Your task to perform on an android device: toggle pop-ups in chrome Image 0: 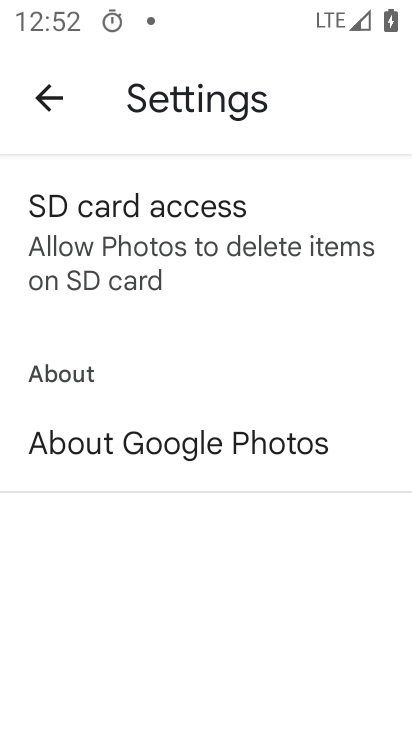
Step 0: drag from (337, 618) to (356, 489)
Your task to perform on an android device: toggle pop-ups in chrome Image 1: 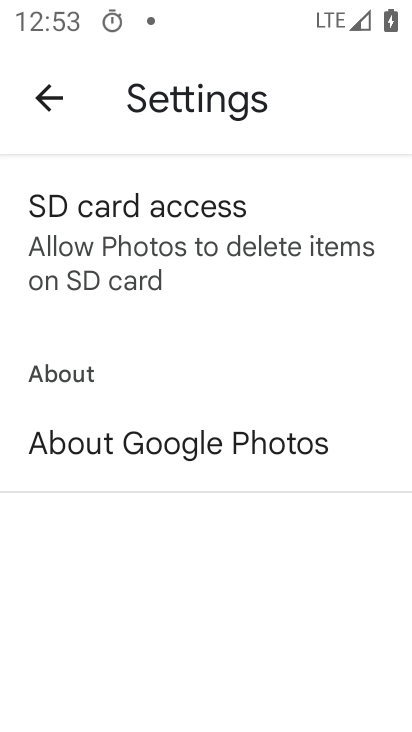
Step 1: click (46, 94)
Your task to perform on an android device: toggle pop-ups in chrome Image 2: 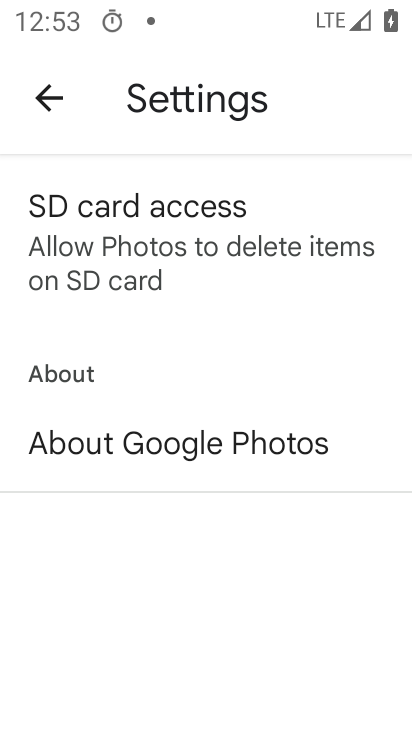
Step 2: press home button
Your task to perform on an android device: toggle pop-ups in chrome Image 3: 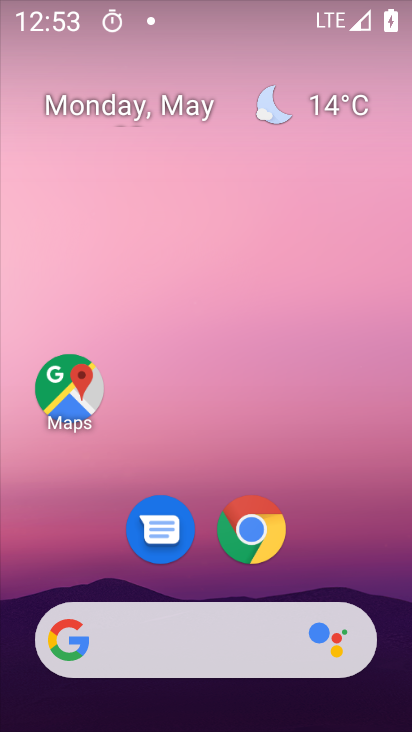
Step 3: click (270, 551)
Your task to perform on an android device: toggle pop-ups in chrome Image 4: 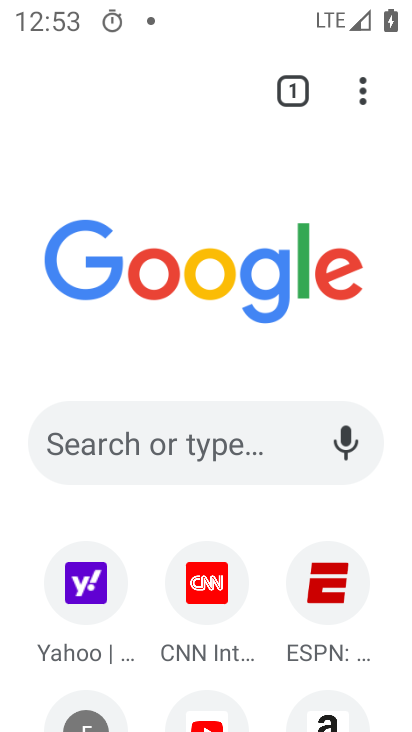
Step 4: click (361, 103)
Your task to perform on an android device: toggle pop-ups in chrome Image 5: 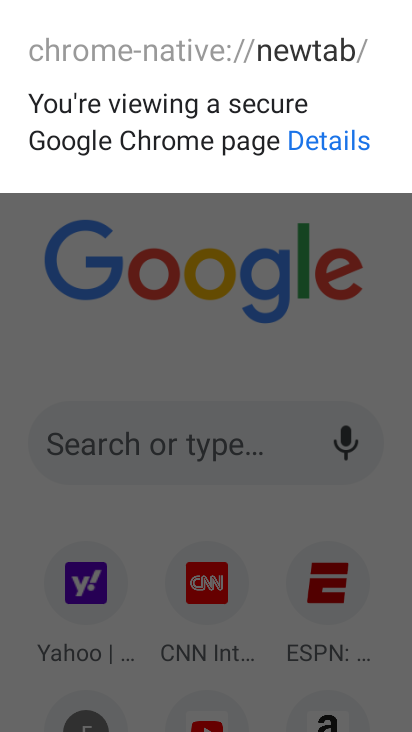
Step 5: click (357, 353)
Your task to perform on an android device: toggle pop-ups in chrome Image 6: 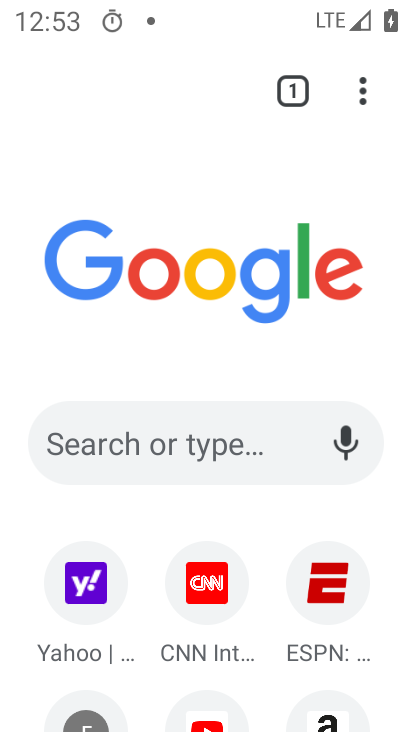
Step 6: click (364, 100)
Your task to perform on an android device: toggle pop-ups in chrome Image 7: 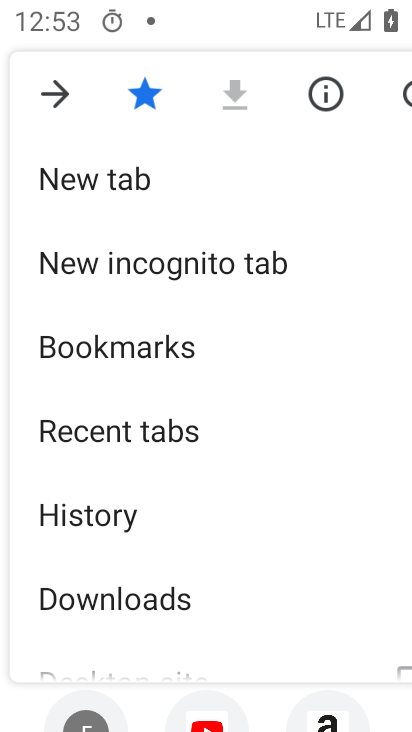
Step 7: drag from (321, 502) to (321, 388)
Your task to perform on an android device: toggle pop-ups in chrome Image 8: 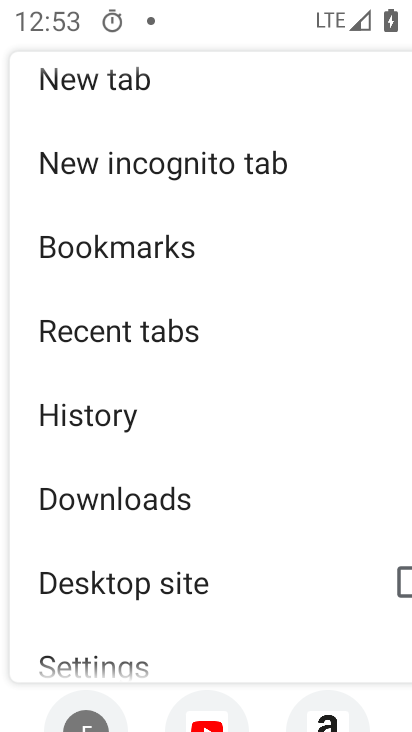
Step 8: drag from (296, 584) to (292, 443)
Your task to perform on an android device: toggle pop-ups in chrome Image 9: 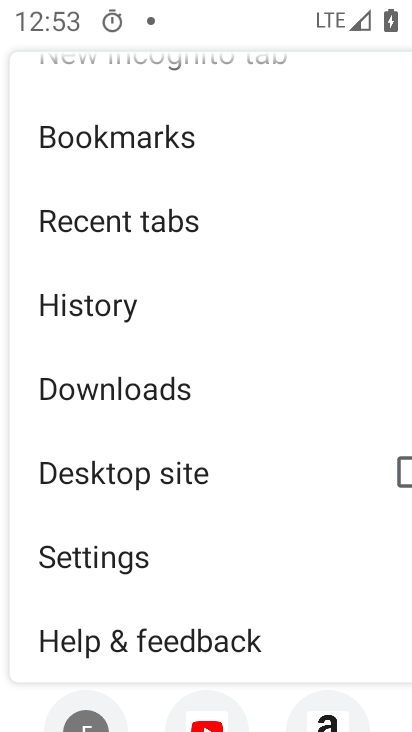
Step 9: drag from (290, 606) to (292, 474)
Your task to perform on an android device: toggle pop-ups in chrome Image 10: 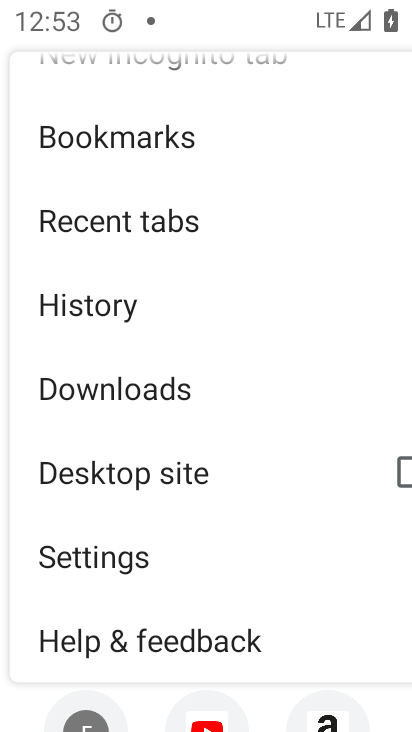
Step 10: click (165, 577)
Your task to perform on an android device: toggle pop-ups in chrome Image 11: 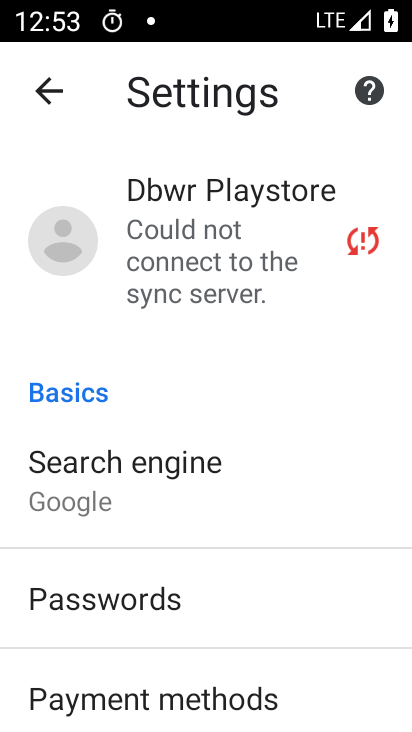
Step 11: drag from (309, 543) to (312, 479)
Your task to perform on an android device: toggle pop-ups in chrome Image 12: 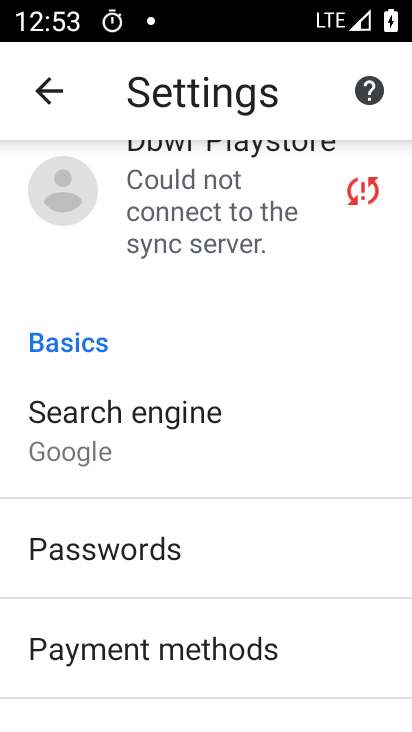
Step 12: drag from (317, 607) to (320, 537)
Your task to perform on an android device: toggle pop-ups in chrome Image 13: 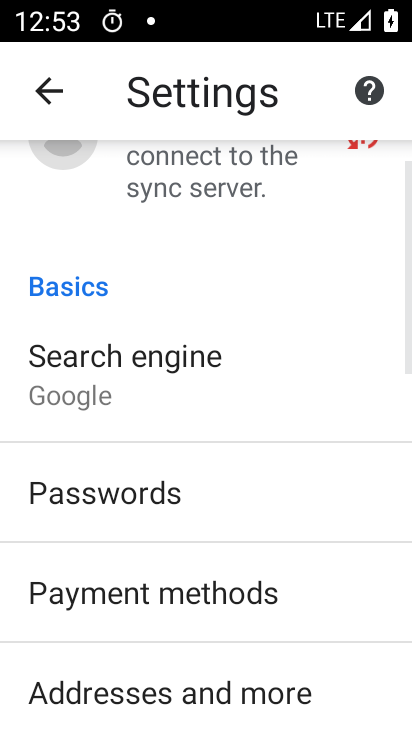
Step 13: drag from (327, 668) to (334, 549)
Your task to perform on an android device: toggle pop-ups in chrome Image 14: 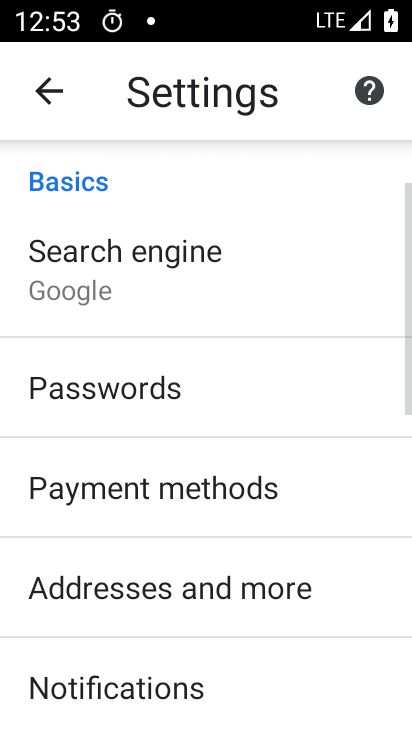
Step 14: drag from (337, 682) to (337, 575)
Your task to perform on an android device: toggle pop-ups in chrome Image 15: 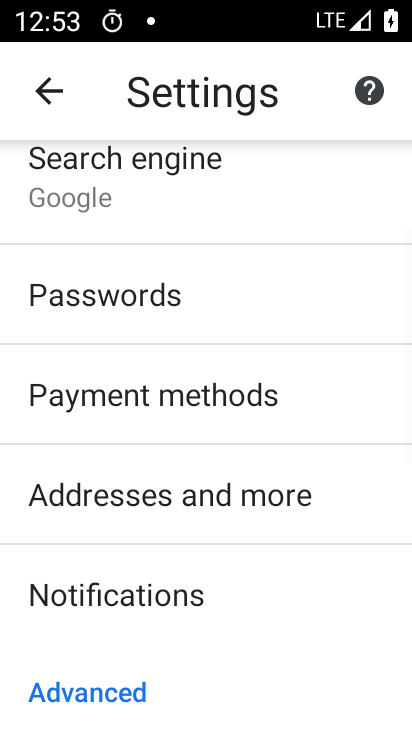
Step 15: drag from (300, 681) to (306, 589)
Your task to perform on an android device: toggle pop-ups in chrome Image 16: 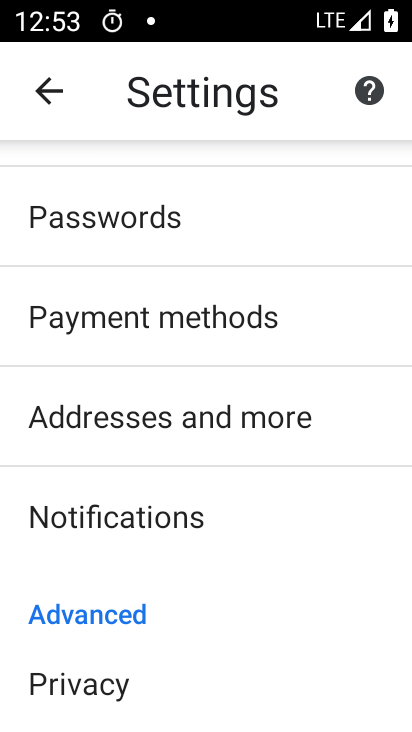
Step 16: drag from (292, 649) to (302, 545)
Your task to perform on an android device: toggle pop-ups in chrome Image 17: 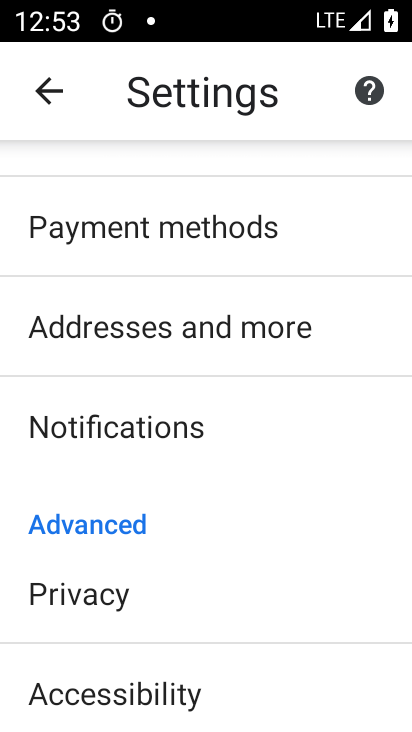
Step 17: drag from (296, 704) to (313, 588)
Your task to perform on an android device: toggle pop-ups in chrome Image 18: 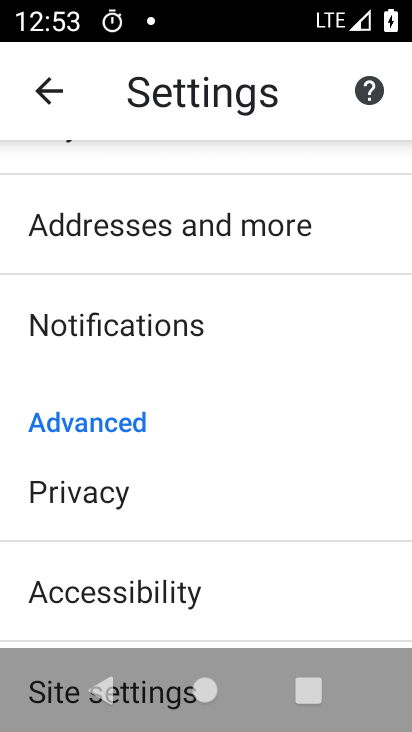
Step 18: drag from (309, 622) to (325, 512)
Your task to perform on an android device: toggle pop-ups in chrome Image 19: 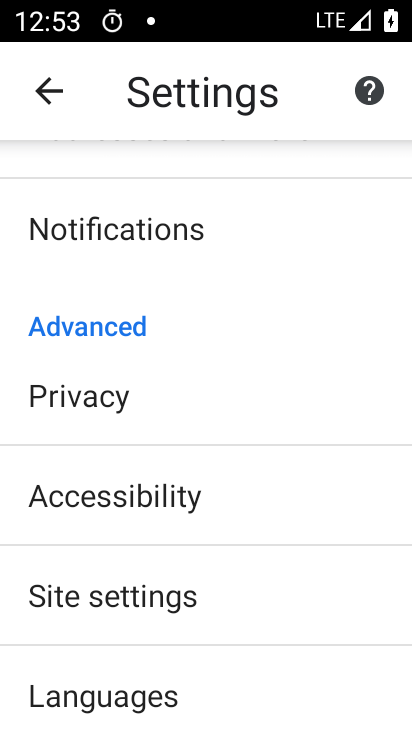
Step 19: drag from (281, 695) to (290, 592)
Your task to perform on an android device: toggle pop-ups in chrome Image 20: 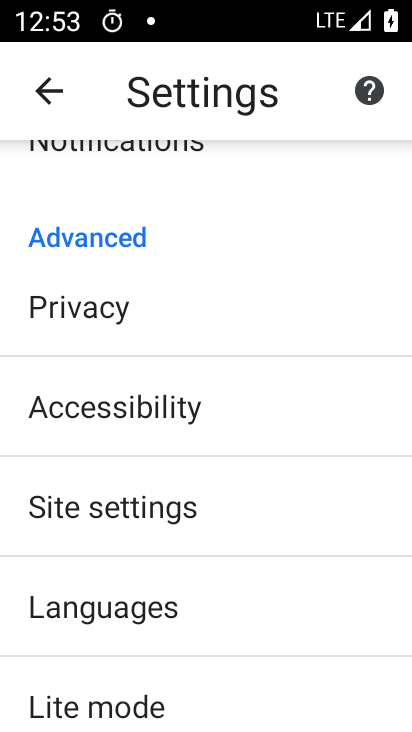
Step 20: click (222, 522)
Your task to perform on an android device: toggle pop-ups in chrome Image 21: 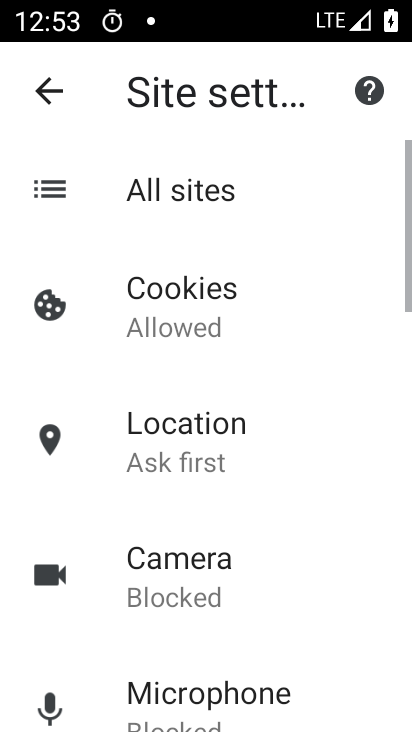
Step 21: drag from (308, 595) to (319, 536)
Your task to perform on an android device: toggle pop-ups in chrome Image 22: 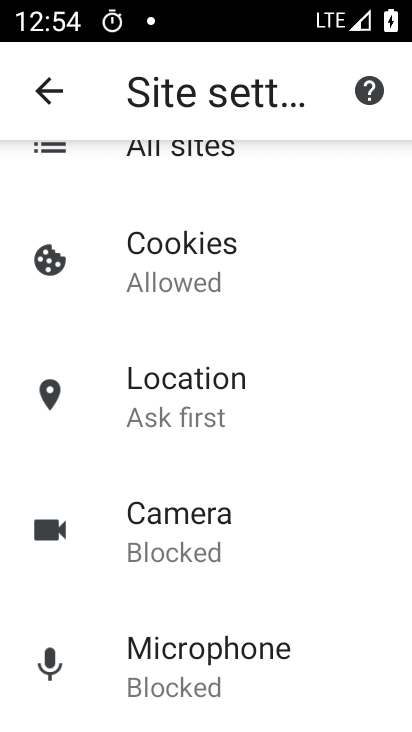
Step 22: drag from (316, 681) to (326, 563)
Your task to perform on an android device: toggle pop-ups in chrome Image 23: 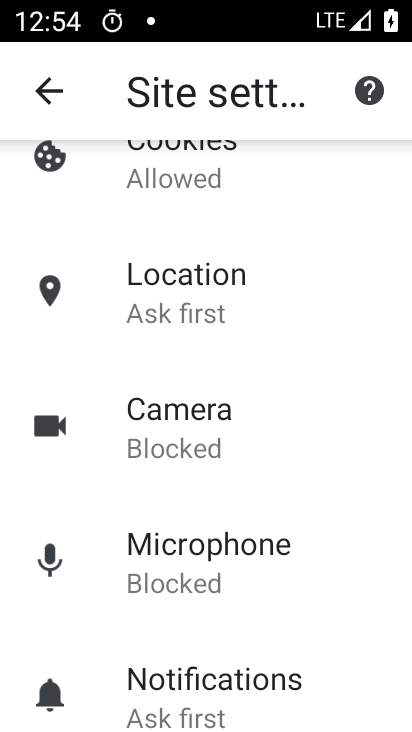
Step 23: drag from (327, 697) to (342, 517)
Your task to perform on an android device: toggle pop-ups in chrome Image 24: 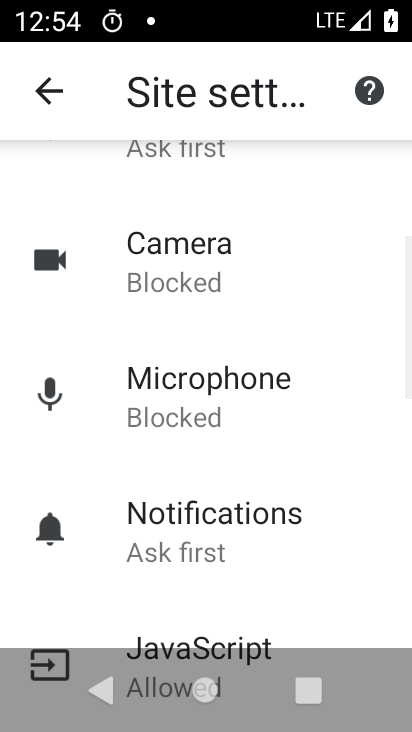
Step 24: drag from (354, 577) to (353, 467)
Your task to perform on an android device: toggle pop-ups in chrome Image 25: 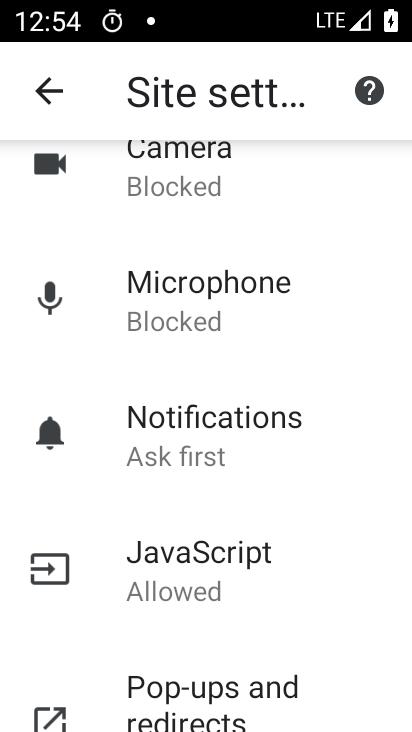
Step 25: click (211, 712)
Your task to perform on an android device: toggle pop-ups in chrome Image 26: 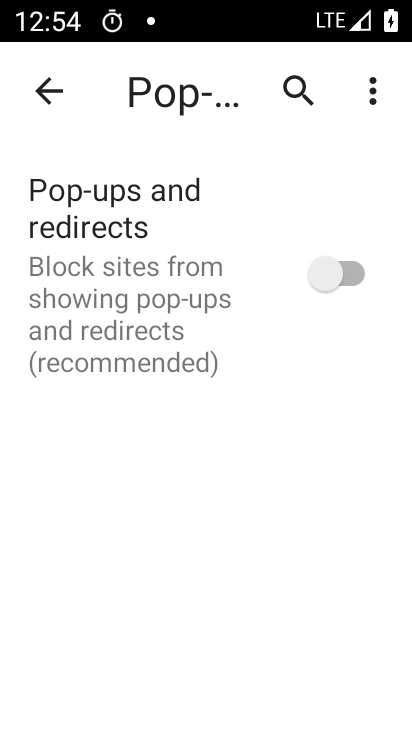
Step 26: click (344, 267)
Your task to perform on an android device: toggle pop-ups in chrome Image 27: 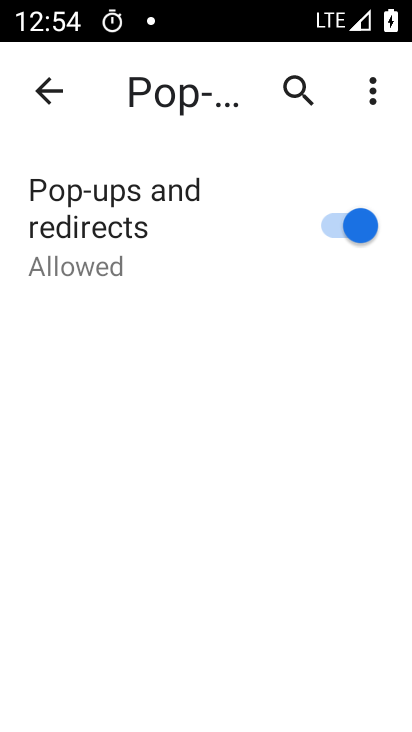
Step 27: task complete